Your task to perform on an android device: choose inbox layout in the gmail app Image 0: 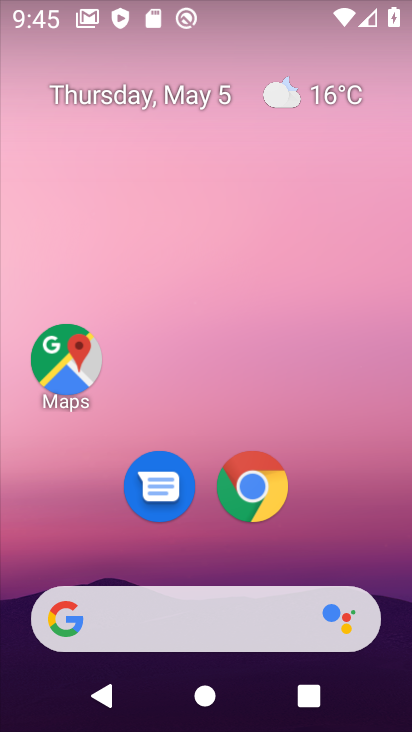
Step 0: drag from (106, 580) to (202, 60)
Your task to perform on an android device: choose inbox layout in the gmail app Image 1: 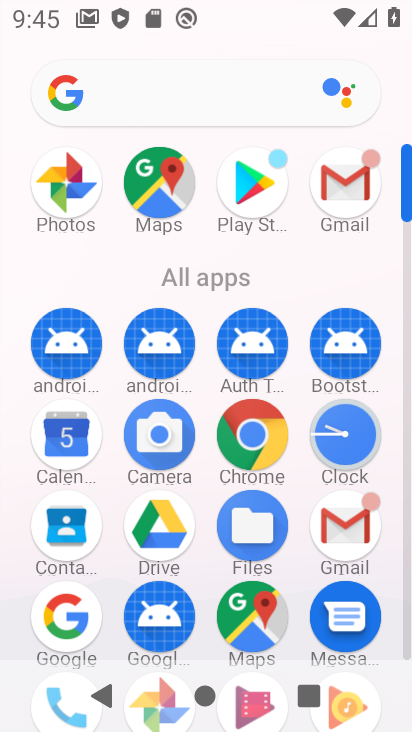
Step 1: click (329, 513)
Your task to perform on an android device: choose inbox layout in the gmail app Image 2: 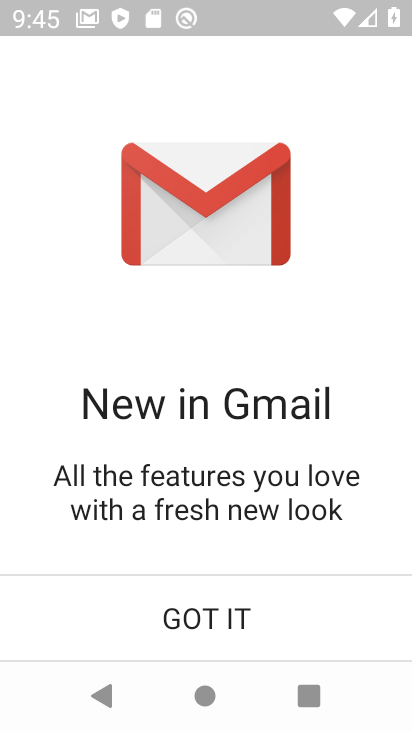
Step 2: click (204, 633)
Your task to perform on an android device: choose inbox layout in the gmail app Image 3: 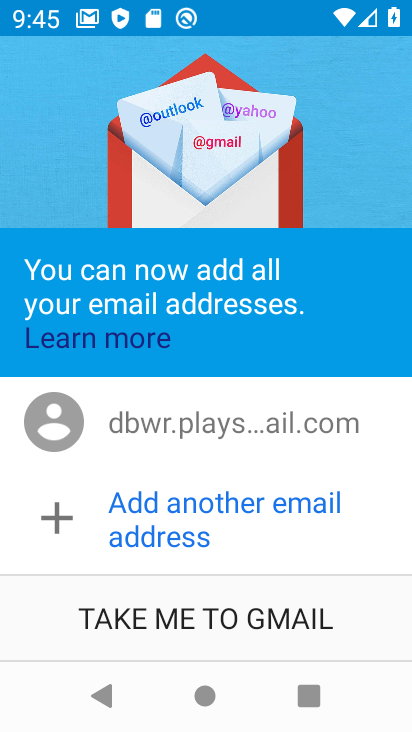
Step 3: click (286, 642)
Your task to perform on an android device: choose inbox layout in the gmail app Image 4: 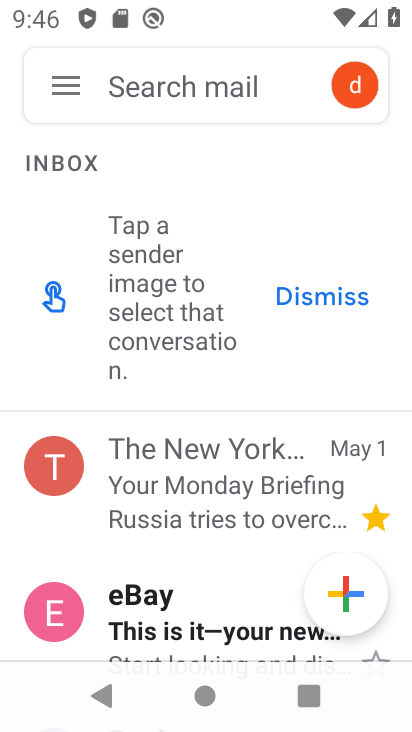
Step 4: click (85, 74)
Your task to perform on an android device: choose inbox layout in the gmail app Image 5: 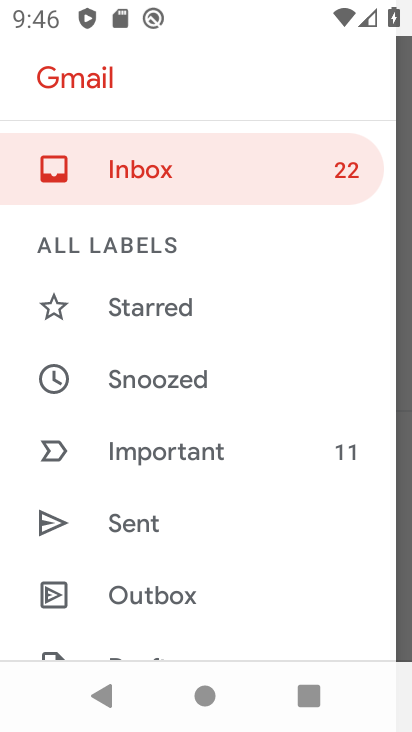
Step 5: drag from (176, 561) to (267, 252)
Your task to perform on an android device: choose inbox layout in the gmail app Image 6: 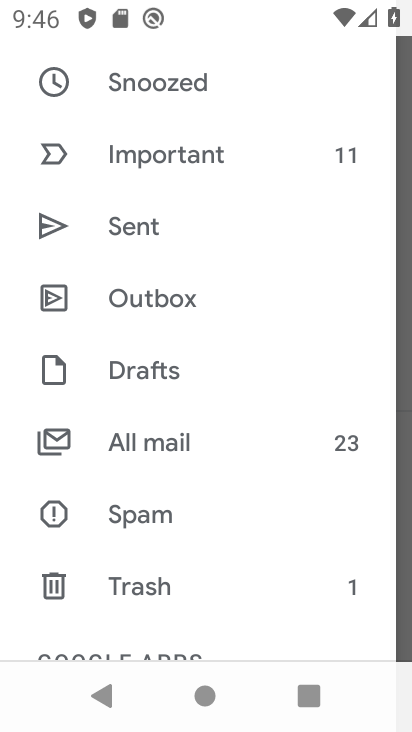
Step 6: drag from (182, 592) to (300, 89)
Your task to perform on an android device: choose inbox layout in the gmail app Image 7: 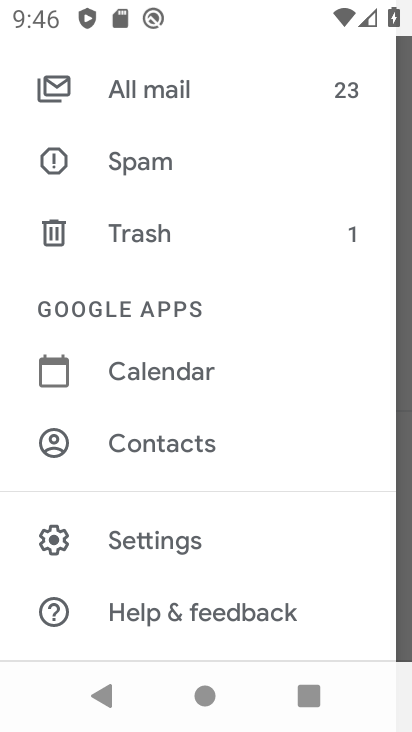
Step 7: click (181, 544)
Your task to perform on an android device: choose inbox layout in the gmail app Image 8: 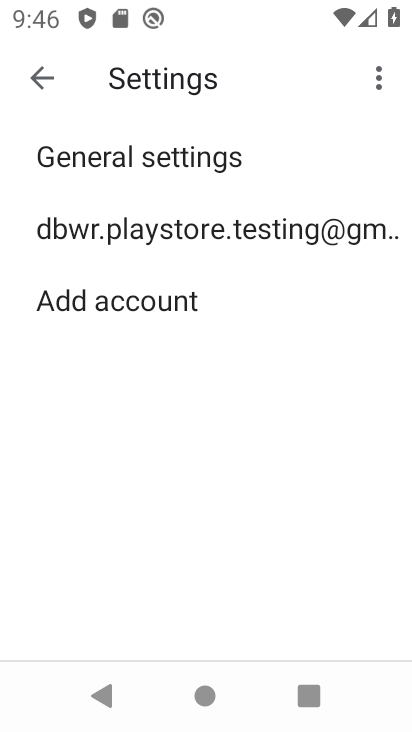
Step 8: click (263, 238)
Your task to perform on an android device: choose inbox layout in the gmail app Image 9: 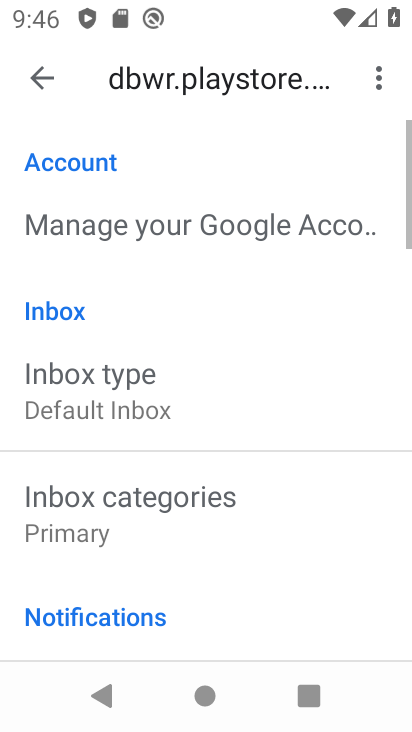
Step 9: click (216, 406)
Your task to perform on an android device: choose inbox layout in the gmail app Image 10: 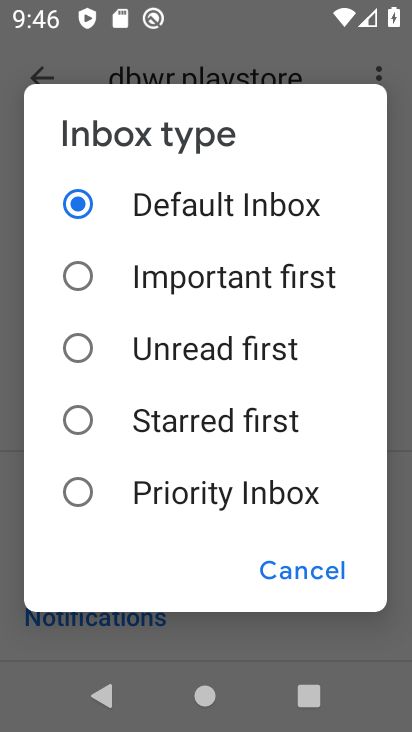
Step 10: click (74, 480)
Your task to perform on an android device: choose inbox layout in the gmail app Image 11: 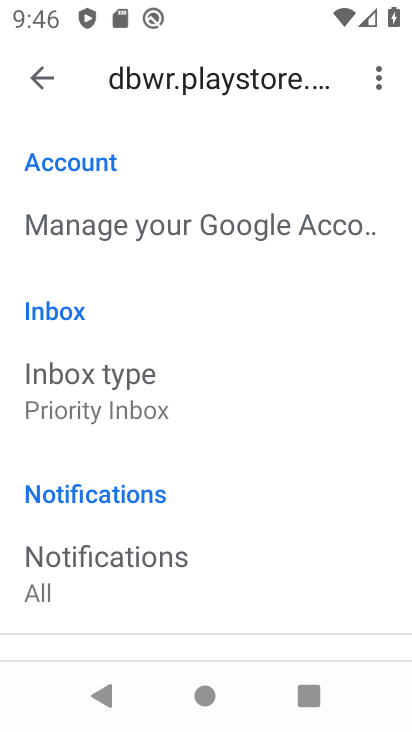
Step 11: task complete